Your task to perform on an android device: Open Chrome and go to settings Image 0: 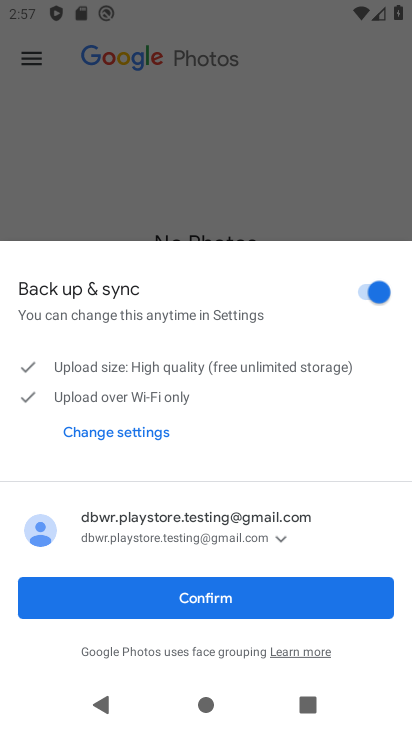
Step 0: press back button
Your task to perform on an android device: Open Chrome and go to settings Image 1: 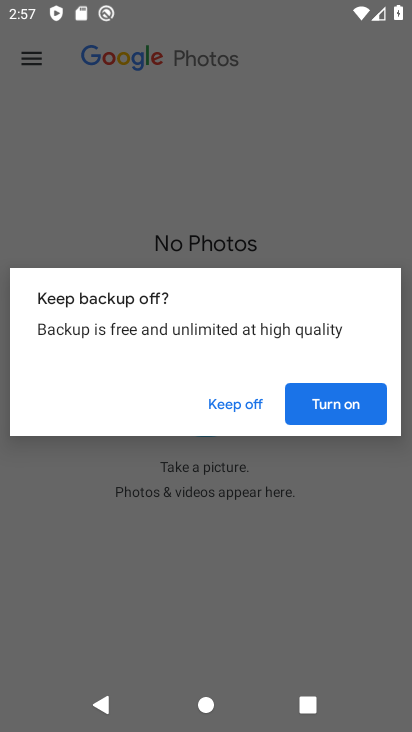
Step 1: press home button
Your task to perform on an android device: Open Chrome and go to settings Image 2: 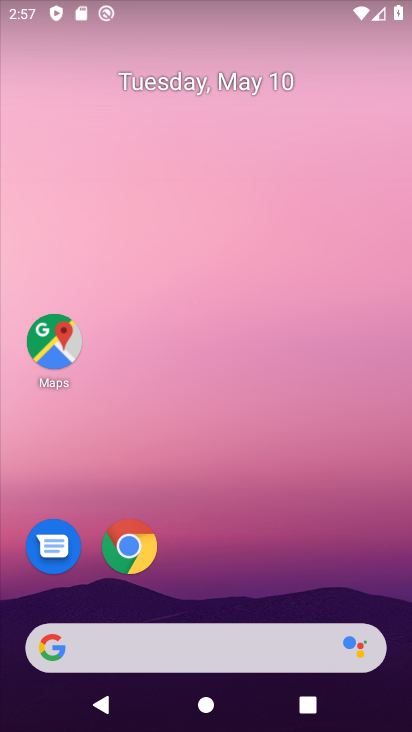
Step 2: click (123, 558)
Your task to perform on an android device: Open Chrome and go to settings Image 3: 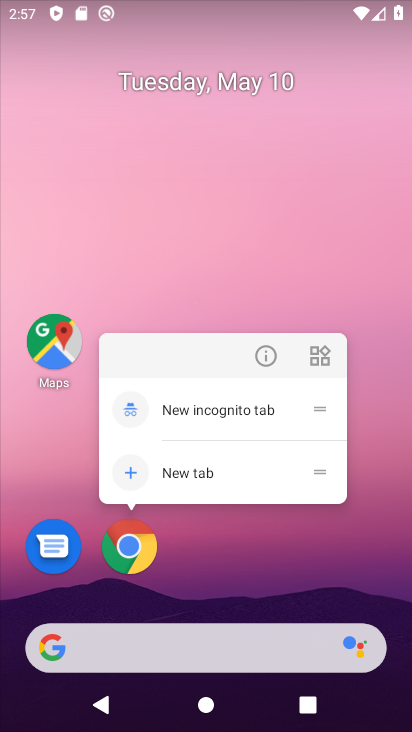
Step 3: click (113, 513)
Your task to perform on an android device: Open Chrome and go to settings Image 4: 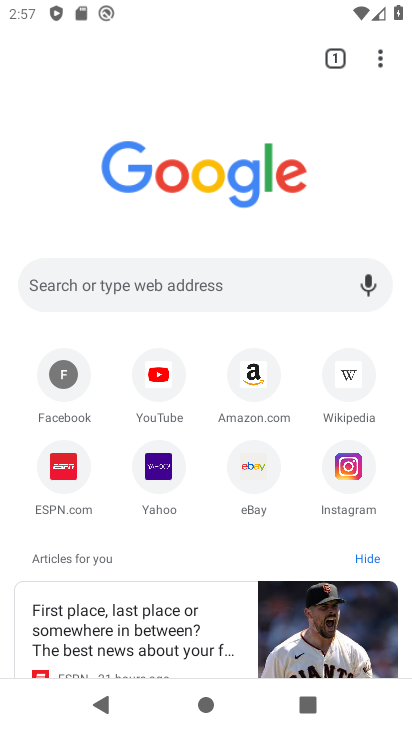
Step 4: task complete